Your task to perform on an android device: Open Android settings Image 0: 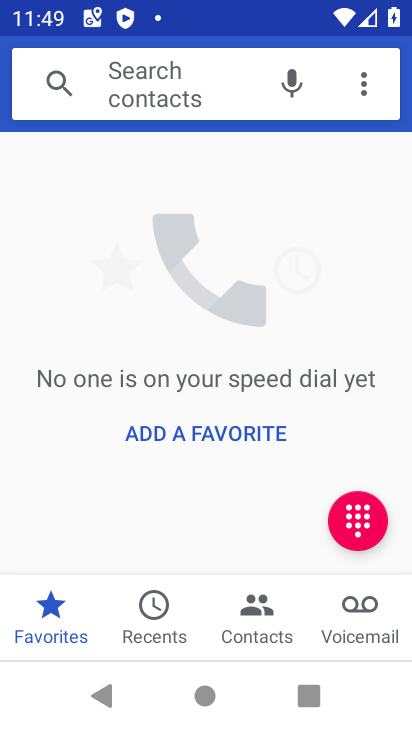
Step 0: press back button
Your task to perform on an android device: Open Android settings Image 1: 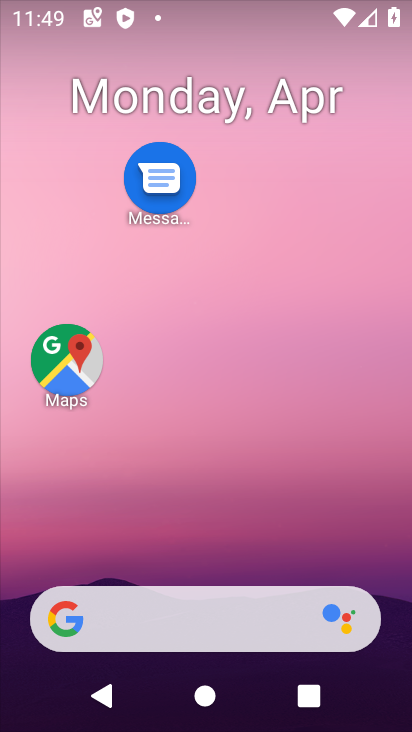
Step 1: drag from (204, 723) to (187, 139)
Your task to perform on an android device: Open Android settings Image 2: 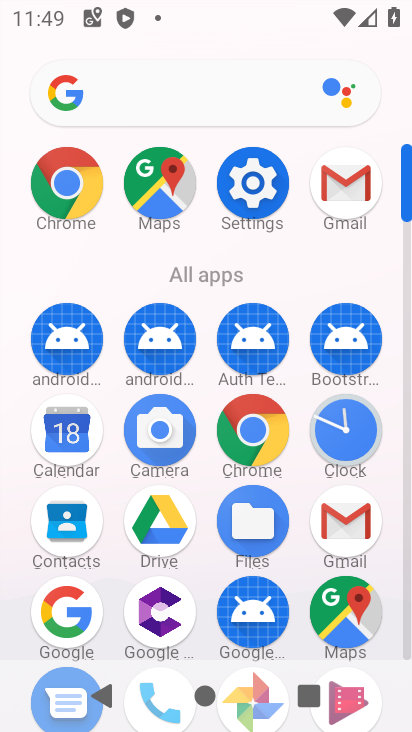
Step 2: click (245, 189)
Your task to perform on an android device: Open Android settings Image 3: 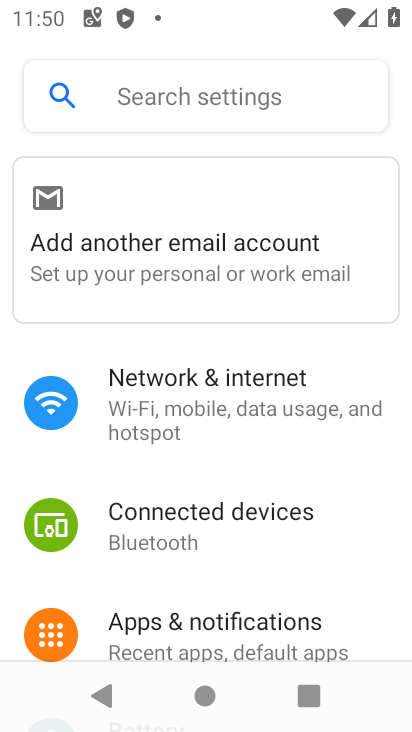
Step 3: drag from (246, 599) to (238, 149)
Your task to perform on an android device: Open Android settings Image 4: 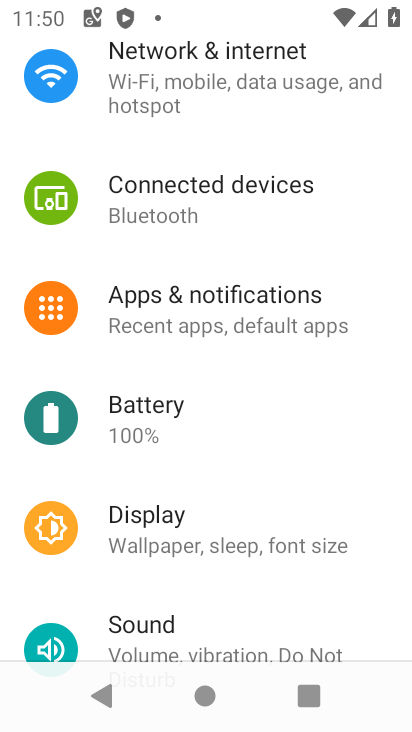
Step 4: drag from (263, 591) to (264, 90)
Your task to perform on an android device: Open Android settings Image 5: 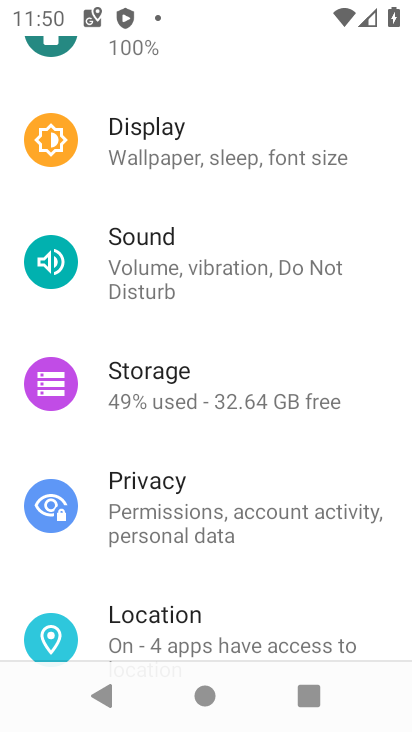
Step 5: drag from (246, 625) to (227, 128)
Your task to perform on an android device: Open Android settings Image 6: 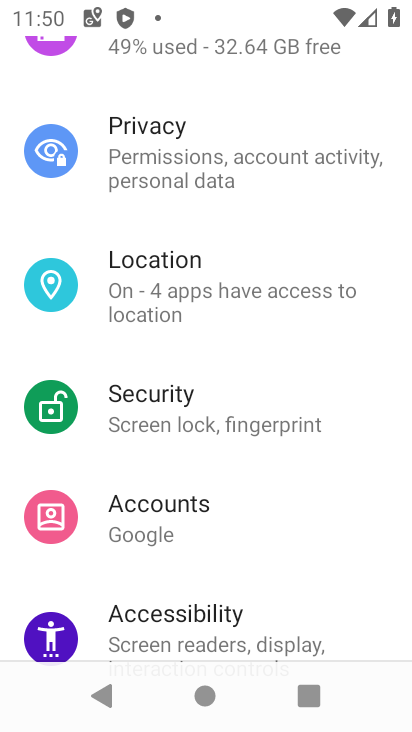
Step 6: drag from (235, 611) to (203, 178)
Your task to perform on an android device: Open Android settings Image 7: 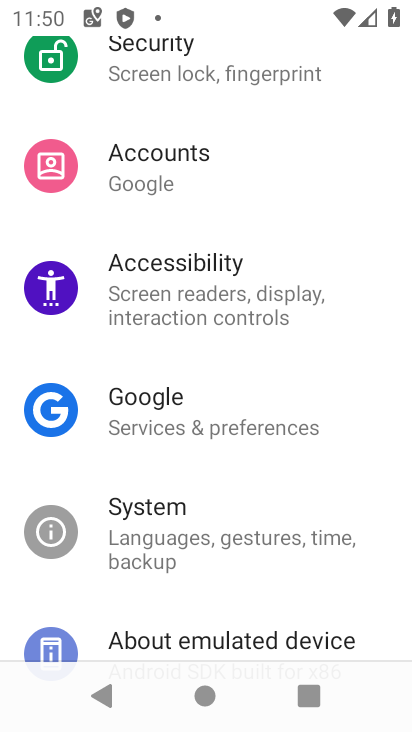
Step 7: drag from (216, 580) to (204, 248)
Your task to perform on an android device: Open Android settings Image 8: 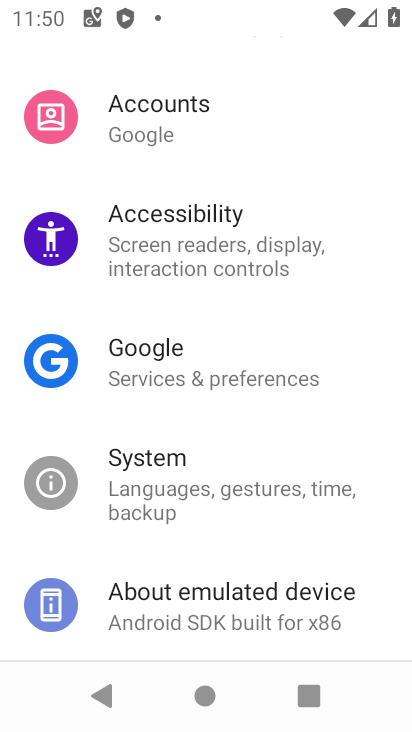
Step 8: click (222, 603)
Your task to perform on an android device: Open Android settings Image 9: 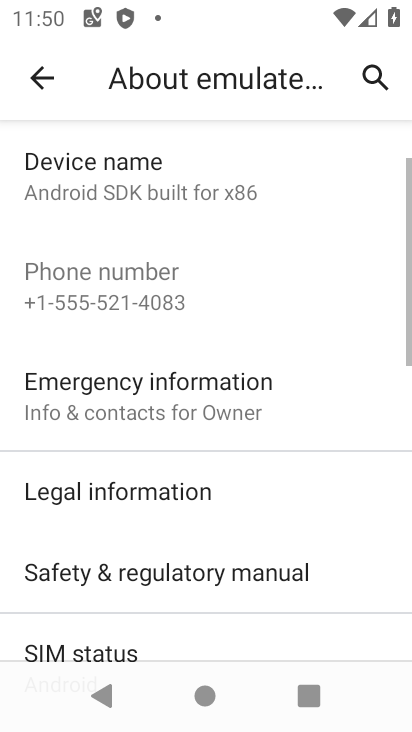
Step 9: drag from (192, 641) to (151, 143)
Your task to perform on an android device: Open Android settings Image 10: 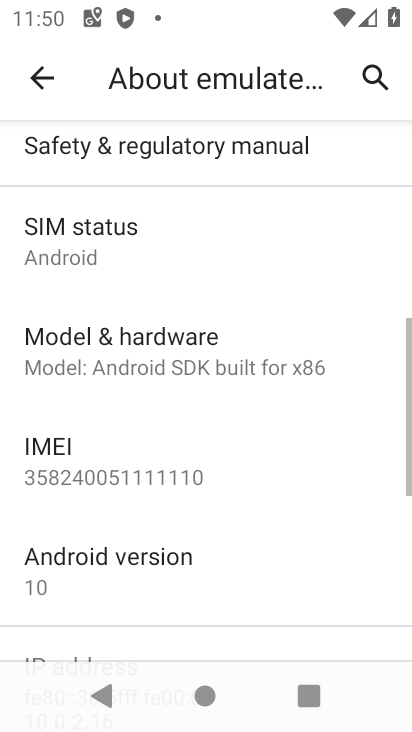
Step 10: click (129, 565)
Your task to perform on an android device: Open Android settings Image 11: 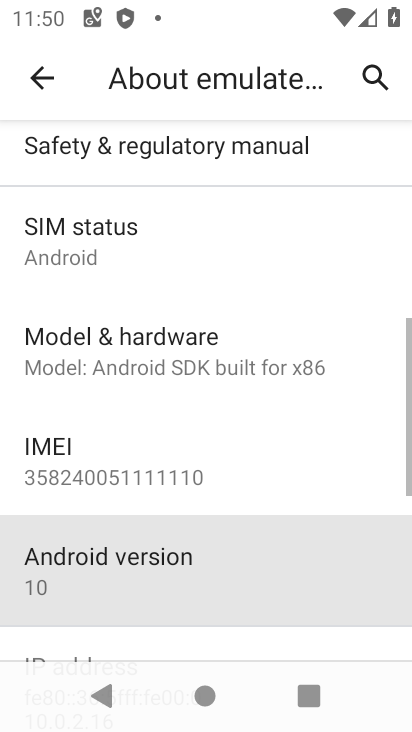
Step 11: click (137, 563)
Your task to perform on an android device: Open Android settings Image 12: 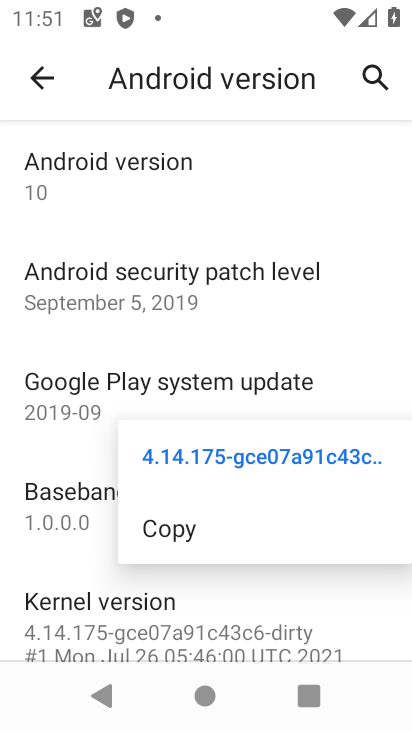
Step 12: task complete